Your task to perform on an android device: Open the stopwatch Image 0: 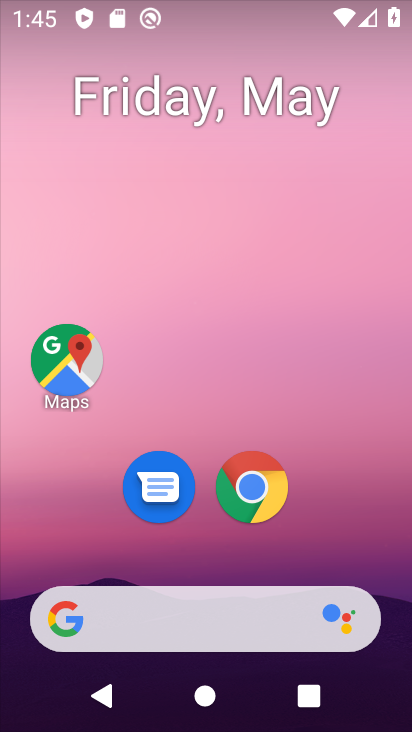
Step 0: drag from (349, 560) to (263, 51)
Your task to perform on an android device: Open the stopwatch Image 1: 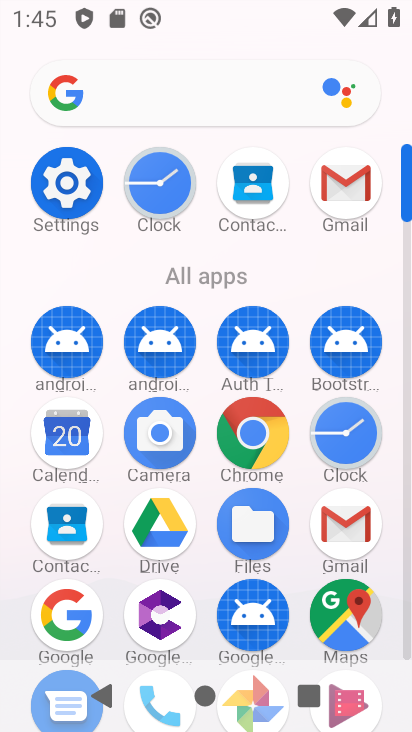
Step 1: click (163, 188)
Your task to perform on an android device: Open the stopwatch Image 2: 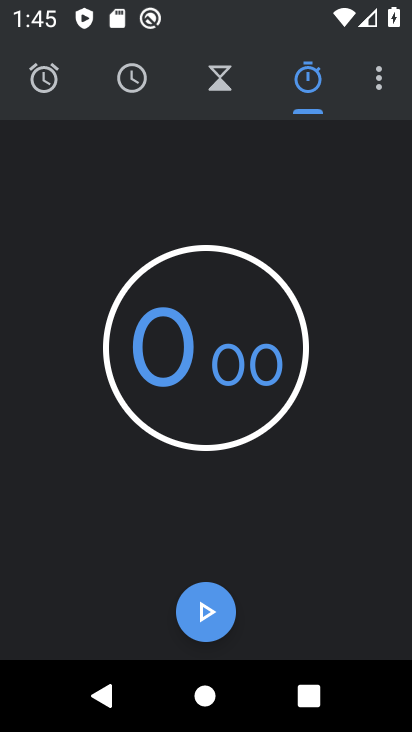
Step 2: task complete